Your task to perform on an android device: Open Yahoo.com Image 0: 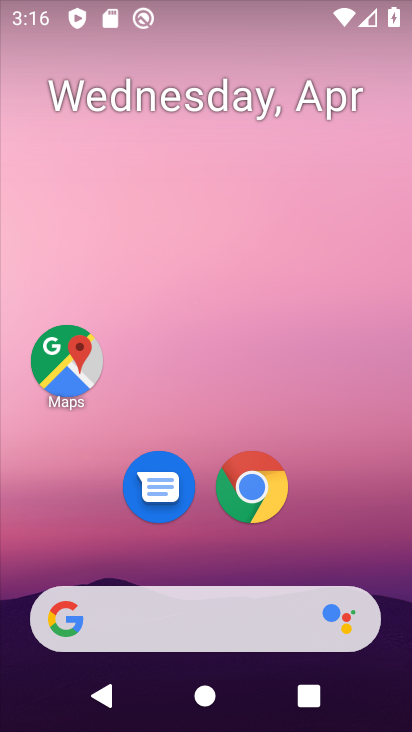
Step 0: click (252, 492)
Your task to perform on an android device: Open Yahoo.com Image 1: 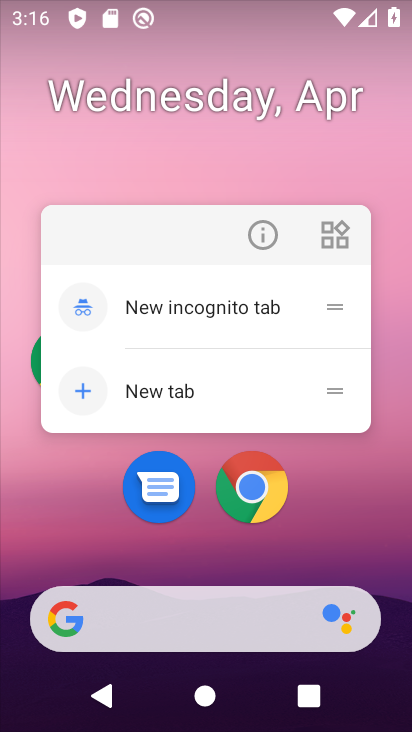
Step 1: click (248, 467)
Your task to perform on an android device: Open Yahoo.com Image 2: 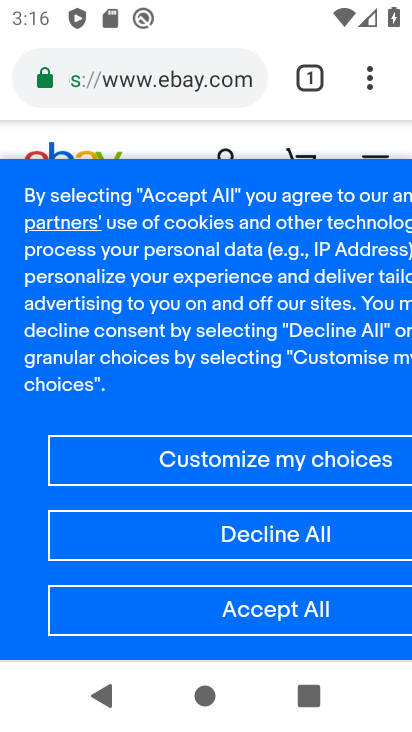
Step 2: drag from (375, 71) to (122, 144)
Your task to perform on an android device: Open Yahoo.com Image 3: 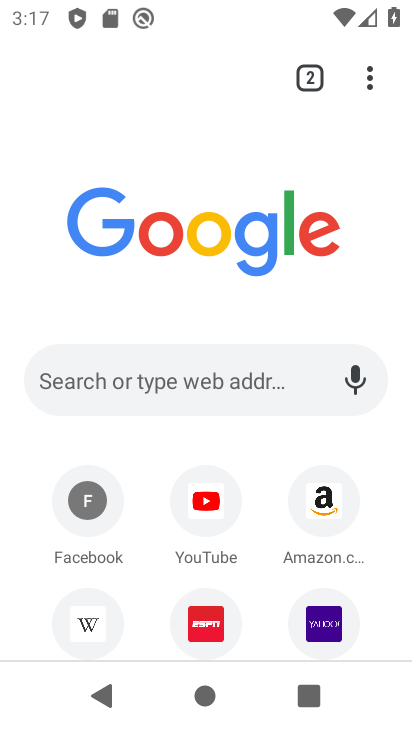
Step 3: drag from (364, 612) to (351, 435)
Your task to perform on an android device: Open Yahoo.com Image 4: 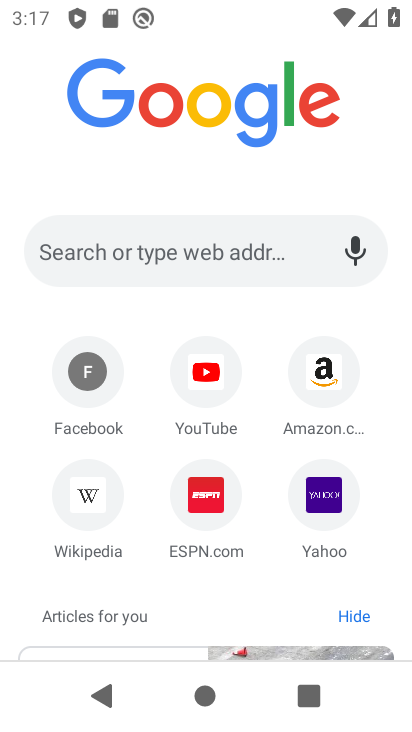
Step 4: click (340, 522)
Your task to perform on an android device: Open Yahoo.com Image 5: 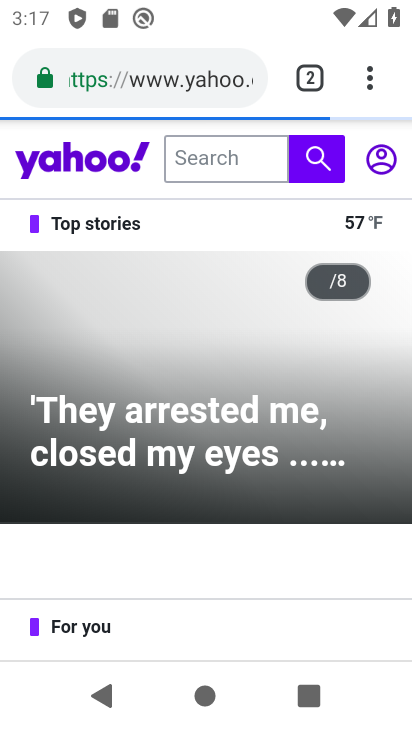
Step 5: task complete